Your task to perform on an android device: check data usage Image 0: 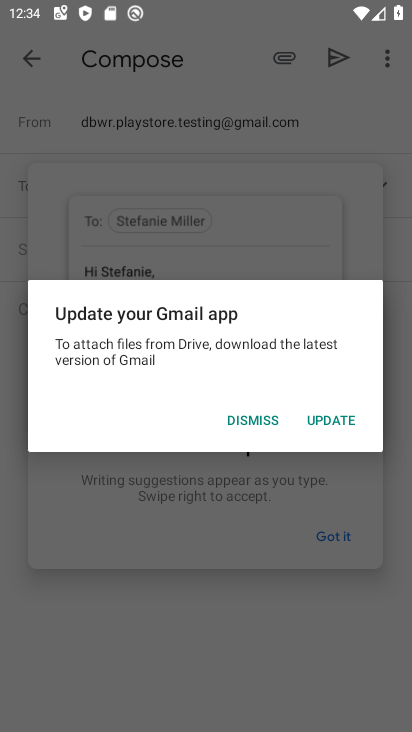
Step 0: press home button
Your task to perform on an android device: check data usage Image 1: 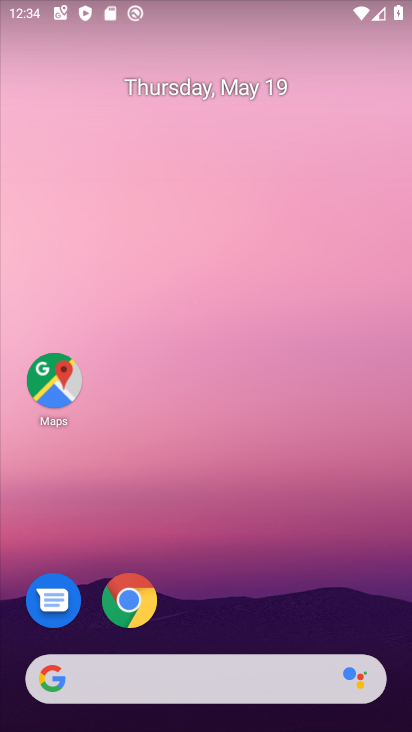
Step 1: click (154, 608)
Your task to perform on an android device: check data usage Image 2: 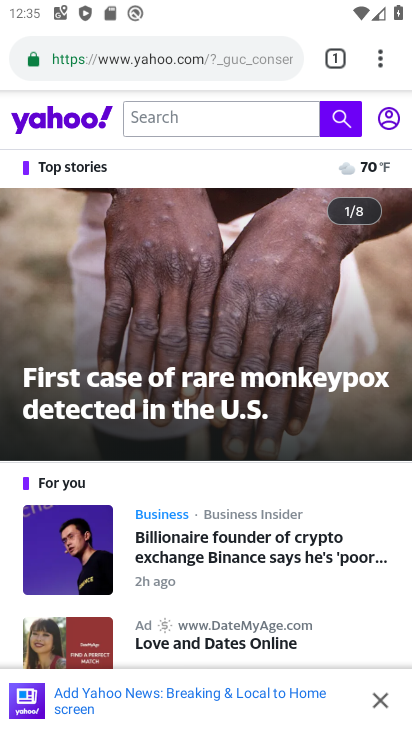
Step 2: press home button
Your task to perform on an android device: check data usage Image 3: 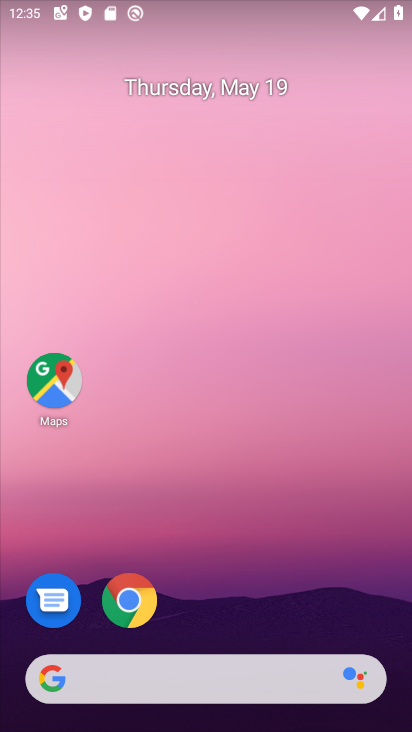
Step 3: drag from (279, 593) to (232, 93)
Your task to perform on an android device: check data usage Image 4: 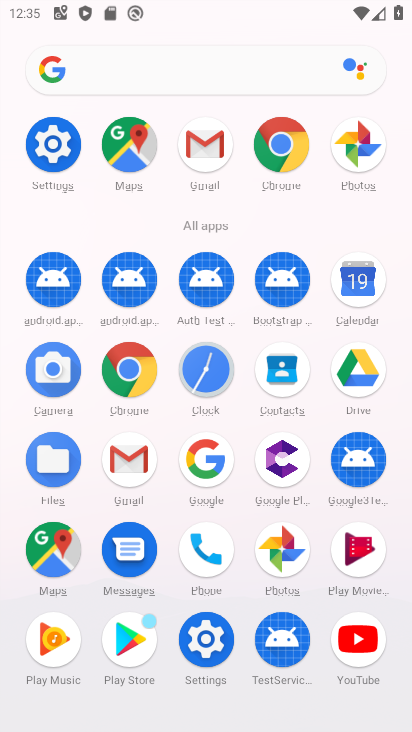
Step 4: click (76, 151)
Your task to perform on an android device: check data usage Image 5: 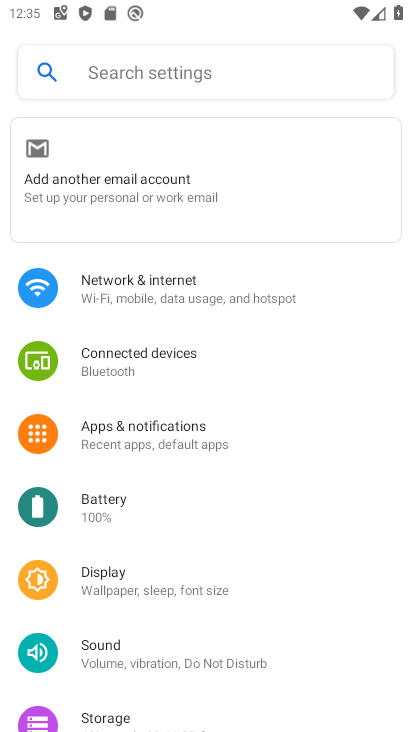
Step 5: click (166, 278)
Your task to perform on an android device: check data usage Image 6: 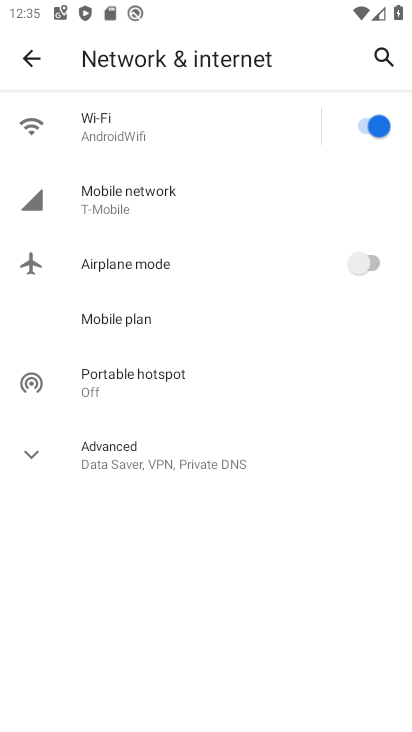
Step 6: click (138, 215)
Your task to perform on an android device: check data usage Image 7: 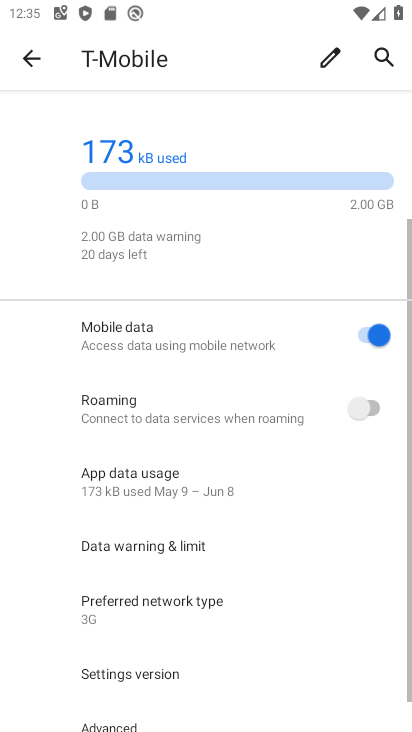
Step 7: task complete